Your task to perform on an android device: delete a single message in the gmail app Image 0: 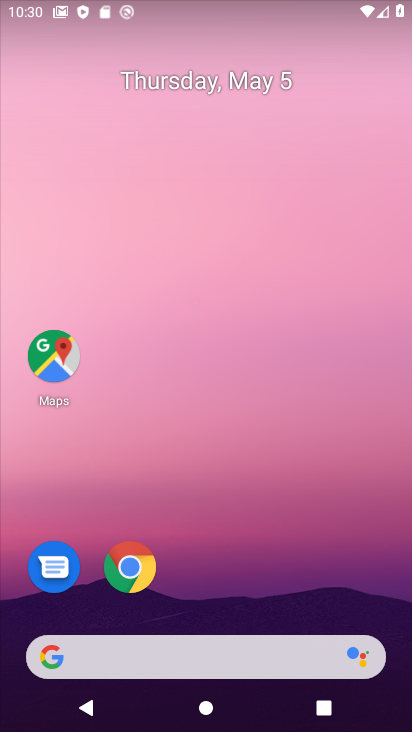
Step 0: drag from (212, 606) to (315, 67)
Your task to perform on an android device: delete a single message in the gmail app Image 1: 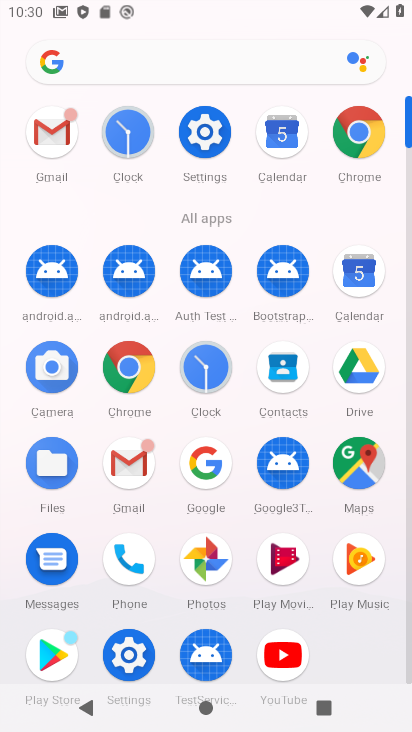
Step 1: click (60, 128)
Your task to perform on an android device: delete a single message in the gmail app Image 2: 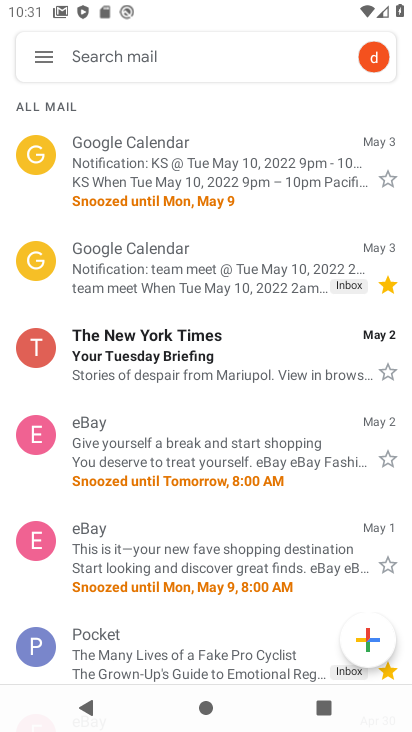
Step 2: click (142, 163)
Your task to perform on an android device: delete a single message in the gmail app Image 3: 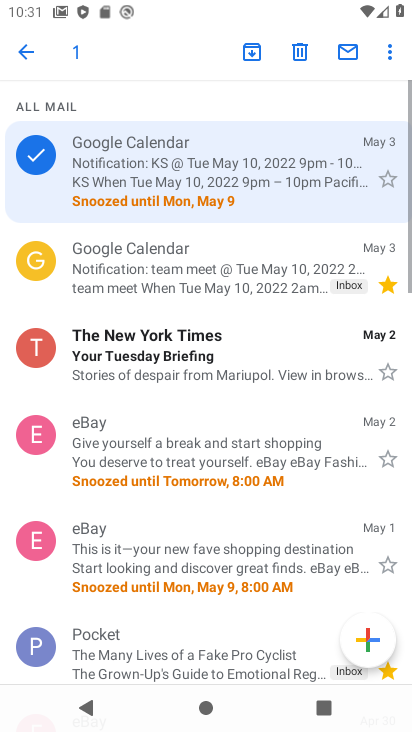
Step 3: click (301, 53)
Your task to perform on an android device: delete a single message in the gmail app Image 4: 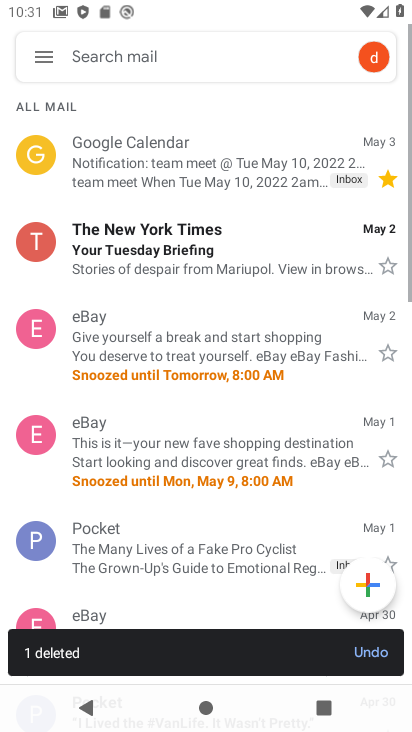
Step 4: task complete